Your task to perform on an android device: Empty the shopping cart on walmart.com. Search for logitech g933 on walmart.com, select the first entry, add it to the cart, then select checkout. Image 0: 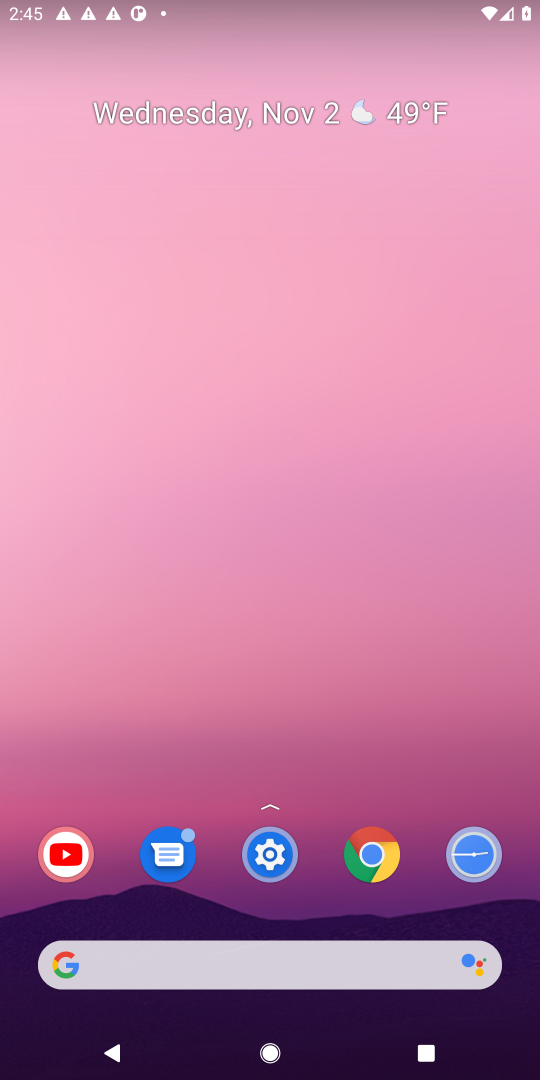
Step 0: click (223, 966)
Your task to perform on an android device: Empty the shopping cart on walmart.com. Search for logitech g933 on walmart.com, select the first entry, add it to the cart, then select checkout. Image 1: 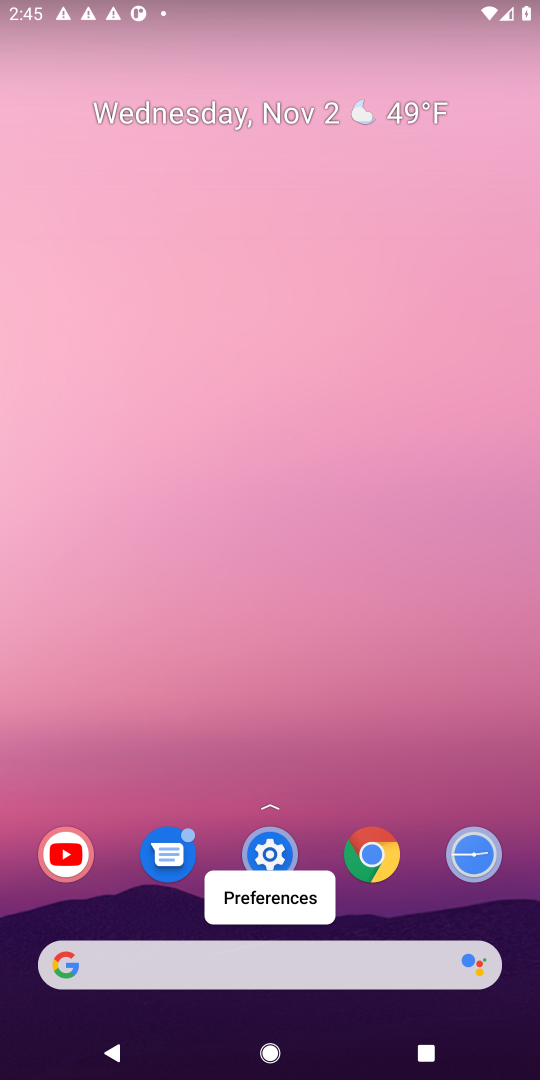
Step 1: click (222, 964)
Your task to perform on an android device: Empty the shopping cart on walmart.com. Search for logitech g933 on walmart.com, select the first entry, add it to the cart, then select checkout. Image 2: 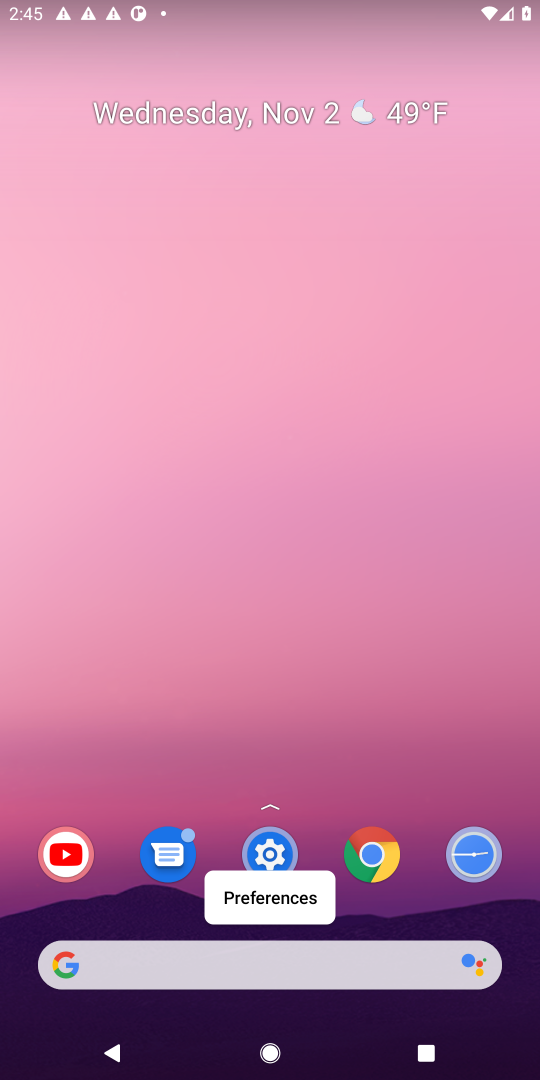
Step 2: click (222, 964)
Your task to perform on an android device: Empty the shopping cart on walmart.com. Search for logitech g933 on walmart.com, select the first entry, add it to the cart, then select checkout. Image 3: 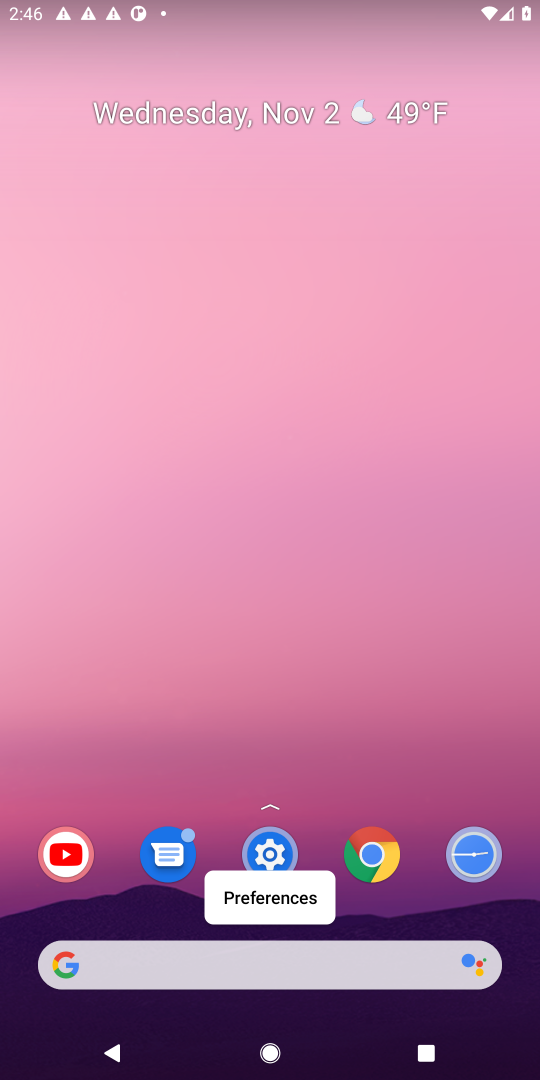
Step 3: click (222, 964)
Your task to perform on an android device: Empty the shopping cart on walmart.com. Search for logitech g933 on walmart.com, select the first entry, add it to the cart, then select checkout. Image 4: 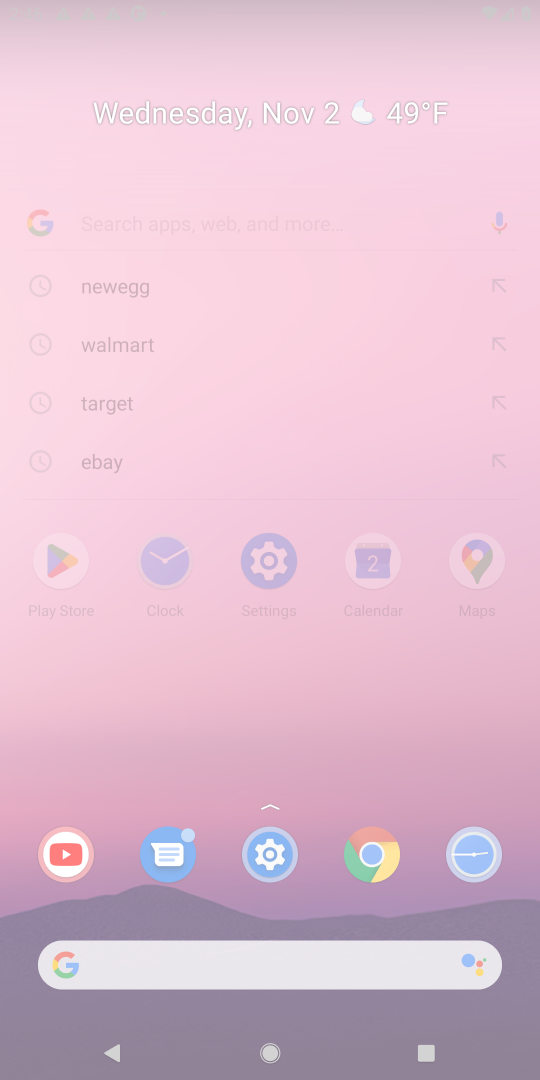
Step 4: click (222, 964)
Your task to perform on an android device: Empty the shopping cart on walmart.com. Search for logitech g933 on walmart.com, select the first entry, add it to the cart, then select checkout. Image 5: 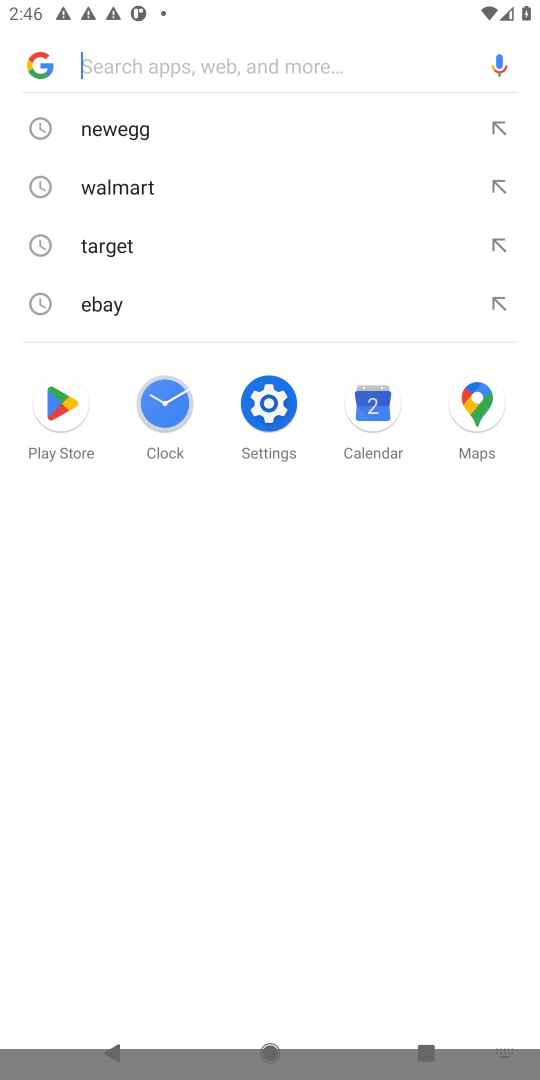
Step 5: click (222, 964)
Your task to perform on an android device: Empty the shopping cart on walmart.com. Search for logitech g933 on walmart.com, select the first entry, add it to the cart, then select checkout. Image 6: 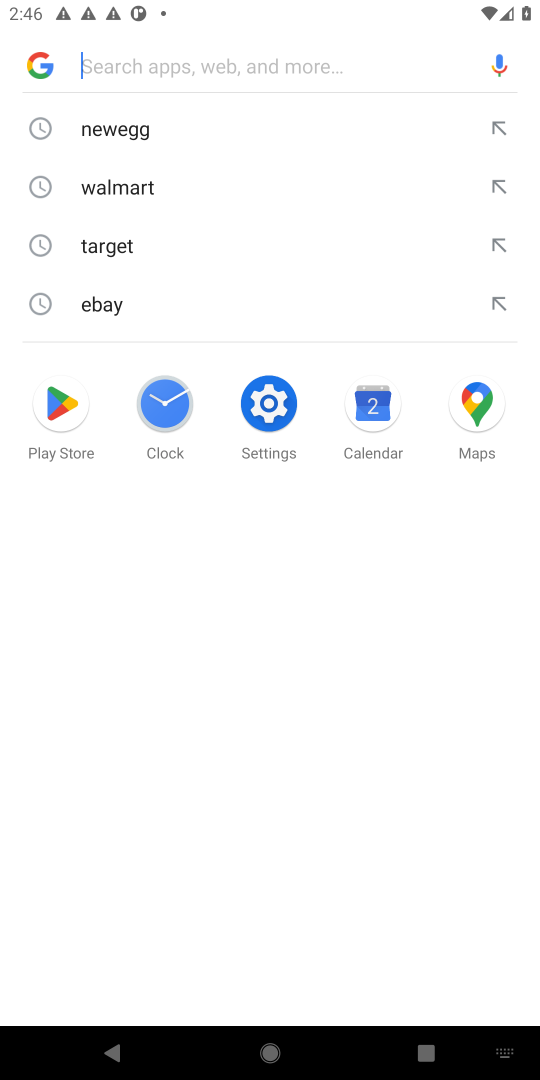
Step 6: click (130, 194)
Your task to perform on an android device: Empty the shopping cart on walmart.com. Search for logitech g933 on walmart.com, select the first entry, add it to the cart, then select checkout. Image 7: 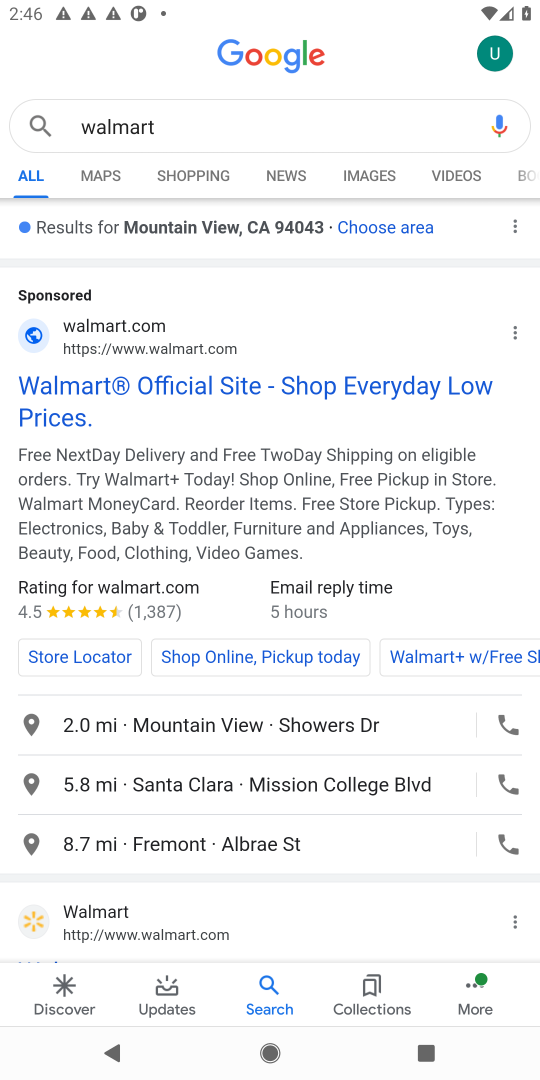
Step 7: press enter
Your task to perform on an android device: Empty the shopping cart on walmart.com. Search for logitech g933 on walmart.com, select the first entry, add it to the cart, then select checkout. Image 8: 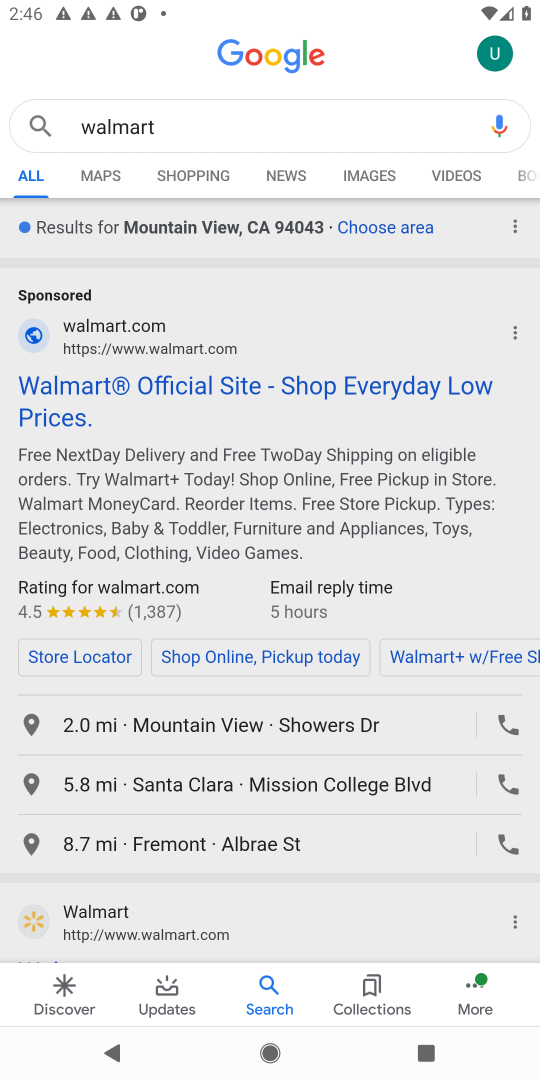
Step 8: click (221, 392)
Your task to perform on an android device: Empty the shopping cart on walmart.com. Search for logitech g933 on walmart.com, select the first entry, add it to the cart, then select checkout. Image 9: 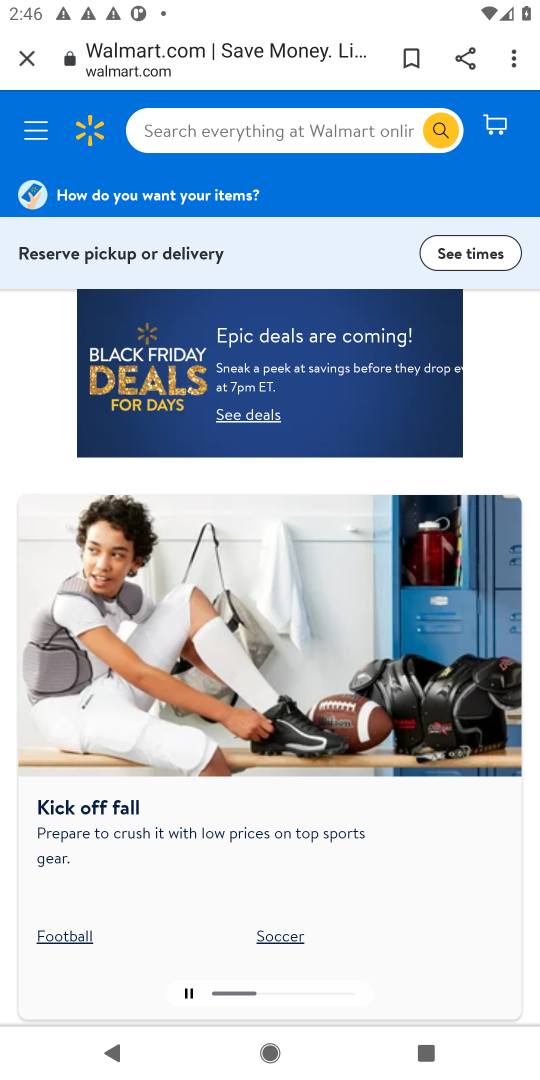
Step 9: click (221, 392)
Your task to perform on an android device: Empty the shopping cart on walmart.com. Search for logitech g933 on walmart.com, select the first entry, add it to the cart, then select checkout. Image 10: 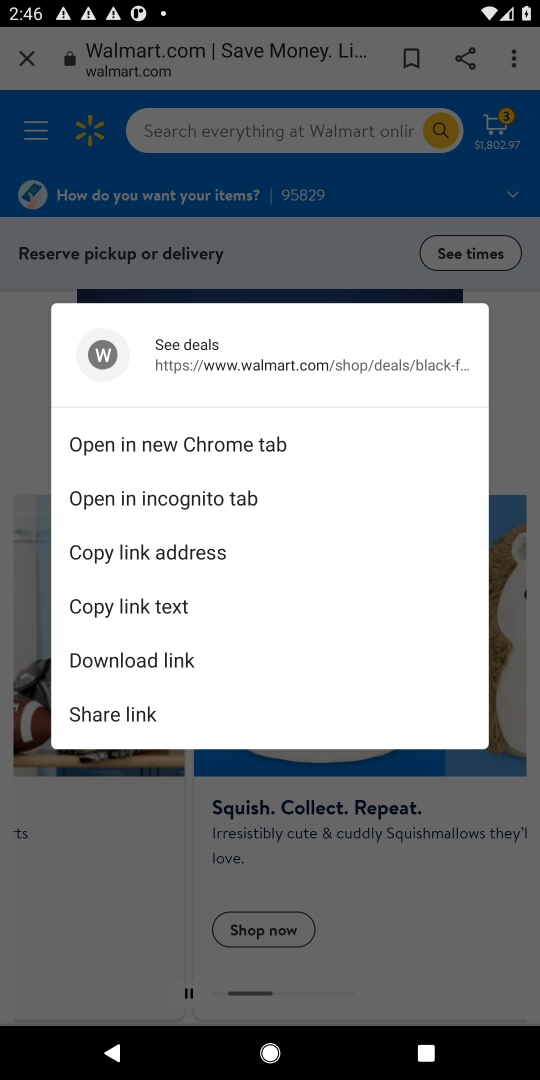
Step 10: click (199, 141)
Your task to perform on an android device: Empty the shopping cart on walmart.com. Search for logitech g933 on walmart.com, select the first entry, add it to the cart, then select checkout. Image 11: 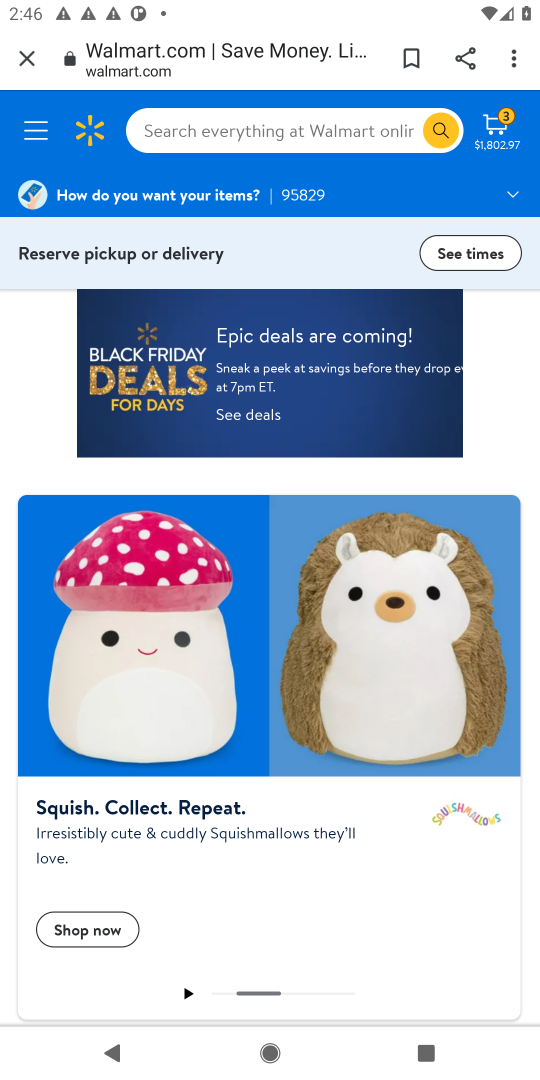
Step 11: click (507, 124)
Your task to perform on an android device: Empty the shopping cart on walmart.com. Search for logitech g933 on walmart.com, select the first entry, add it to the cart, then select checkout. Image 12: 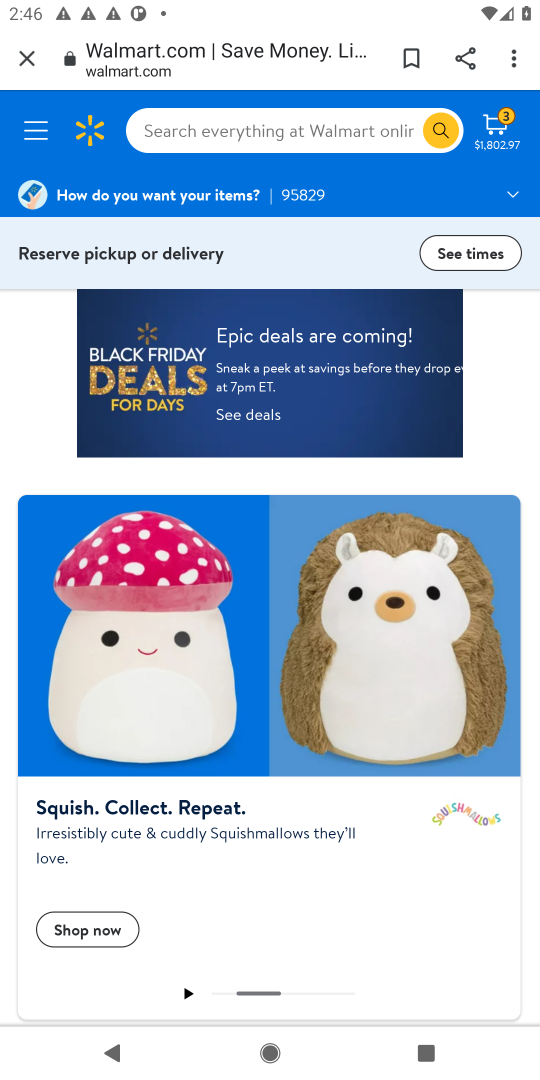
Step 12: click (498, 134)
Your task to perform on an android device: Empty the shopping cart on walmart.com. Search for logitech g933 on walmart.com, select the first entry, add it to the cart, then select checkout. Image 13: 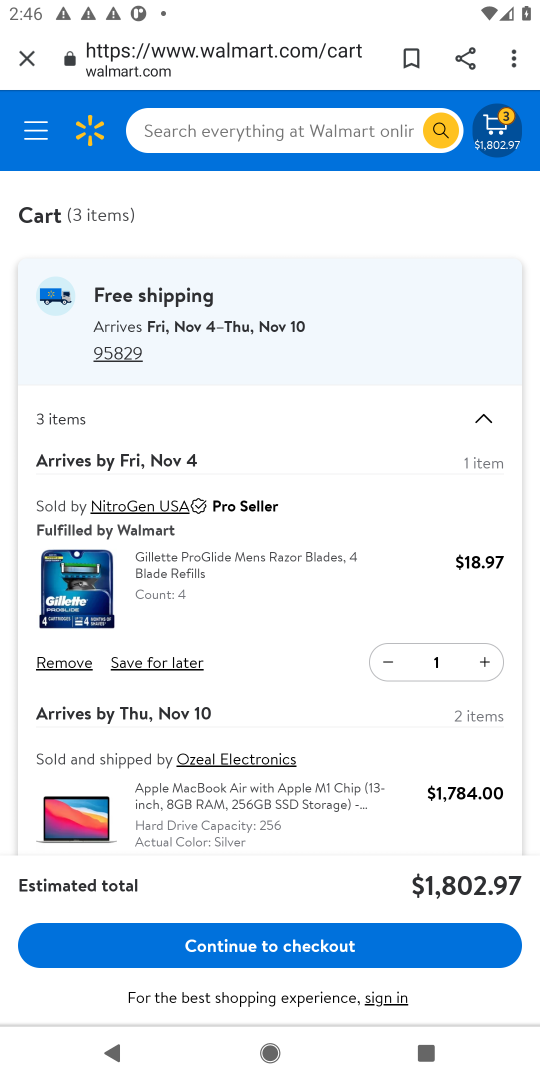
Step 13: click (497, 135)
Your task to perform on an android device: Empty the shopping cart on walmart.com. Search for logitech g933 on walmart.com, select the first entry, add it to the cart, then select checkout. Image 14: 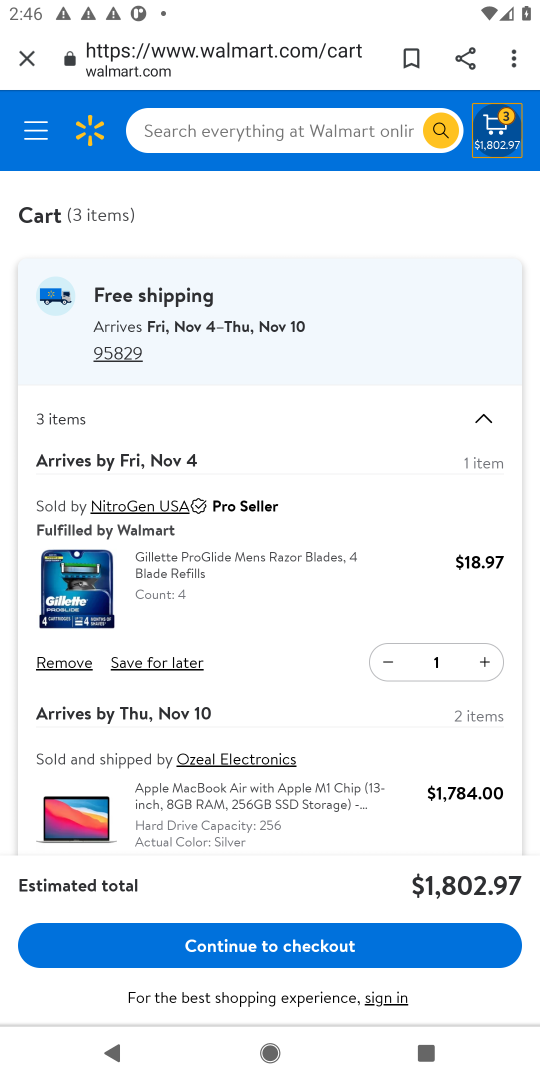
Step 14: click (381, 662)
Your task to perform on an android device: Empty the shopping cart on walmart.com. Search for logitech g933 on walmart.com, select the first entry, add it to the cart, then select checkout. Image 15: 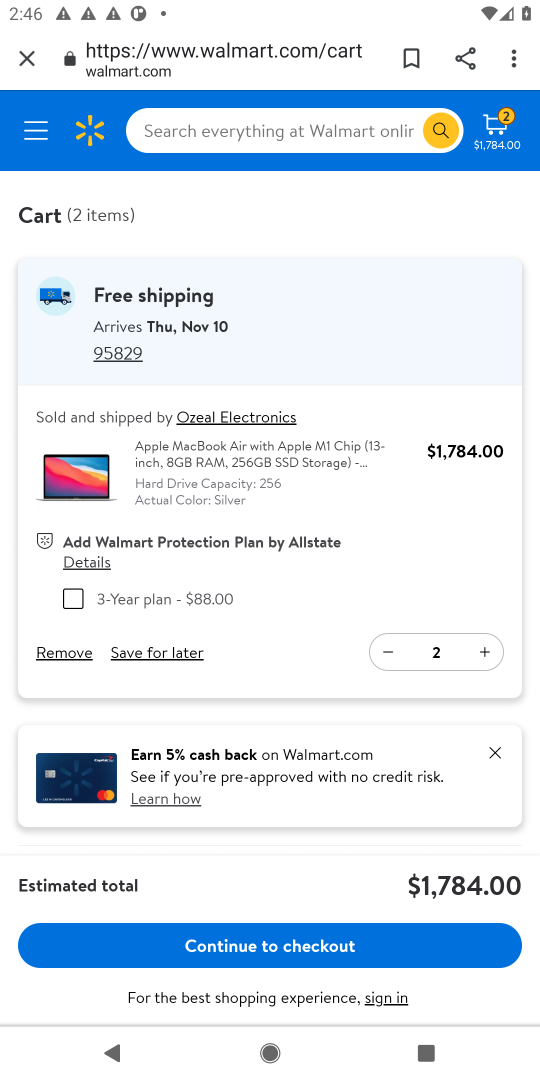
Step 15: click (386, 649)
Your task to perform on an android device: Empty the shopping cart on walmart.com. Search for logitech g933 on walmart.com, select the first entry, add it to the cart, then select checkout. Image 16: 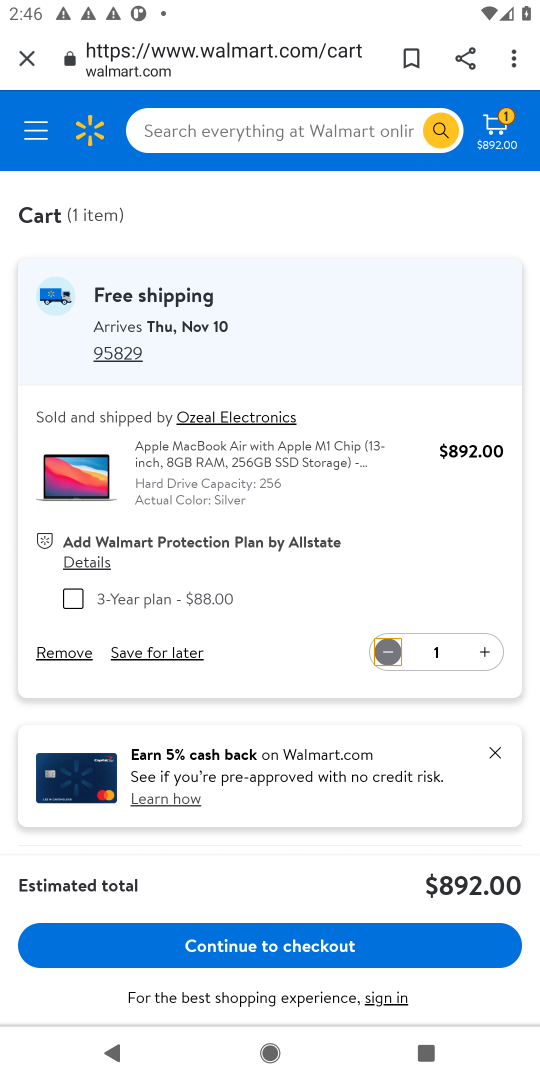
Step 16: click (387, 651)
Your task to perform on an android device: Empty the shopping cart on walmart.com. Search for logitech g933 on walmart.com, select the first entry, add it to the cart, then select checkout. Image 17: 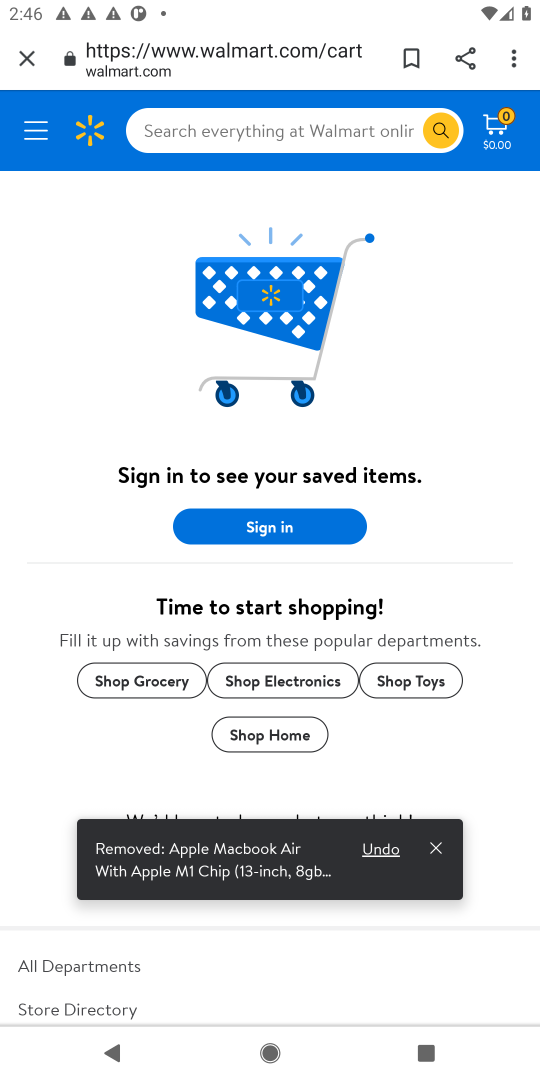
Step 17: click (247, 128)
Your task to perform on an android device: Empty the shopping cart on walmart.com. Search for logitech g933 on walmart.com, select the first entry, add it to the cart, then select checkout. Image 18: 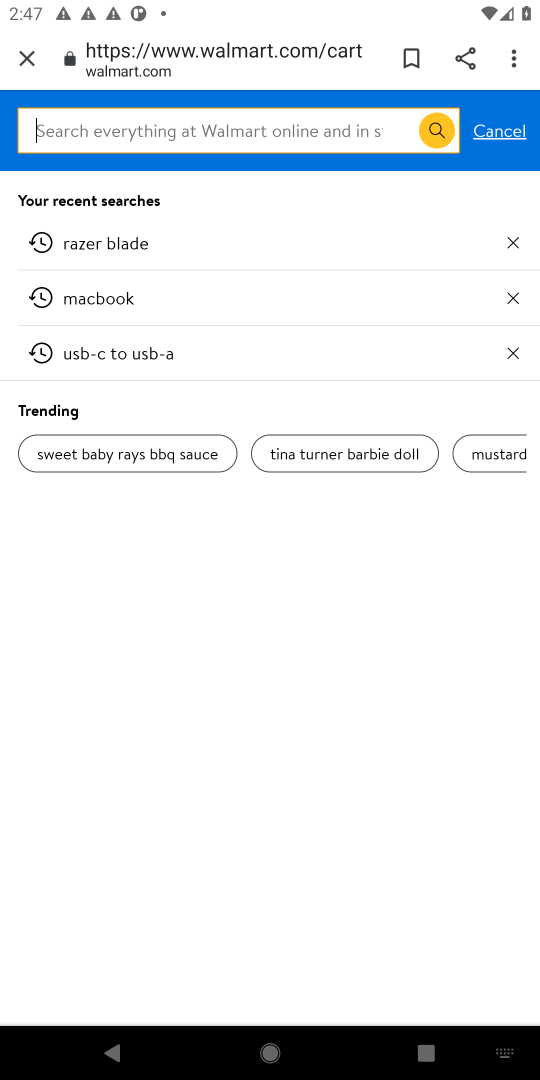
Step 18: type "logitech g933"
Your task to perform on an android device: Empty the shopping cart on walmart.com. Search for logitech g933 on walmart.com, select the first entry, add it to the cart, then select checkout. Image 19: 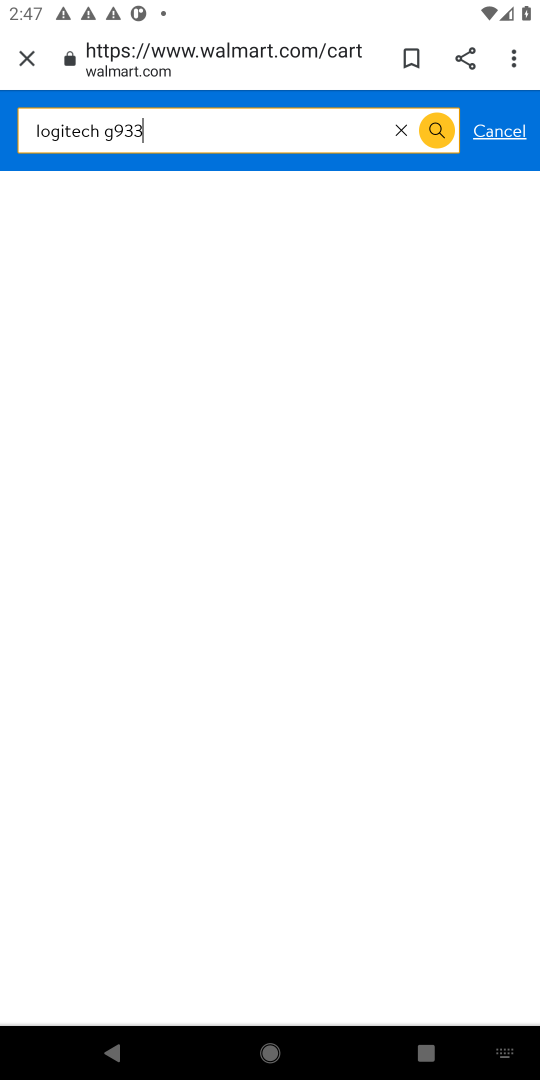
Step 19: type ""
Your task to perform on an android device: Empty the shopping cart on walmart.com. Search for logitech g933 on walmart.com, select the first entry, add it to the cart, then select checkout. Image 20: 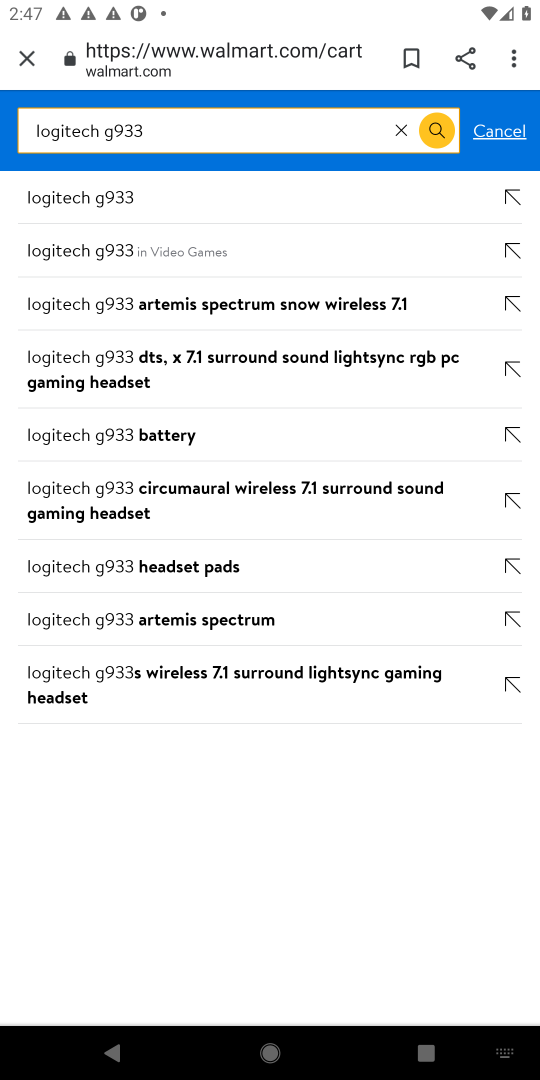
Step 20: press enter
Your task to perform on an android device: Empty the shopping cart on walmart.com. Search for logitech g933 on walmart.com, select the first entry, add it to the cart, then select checkout. Image 21: 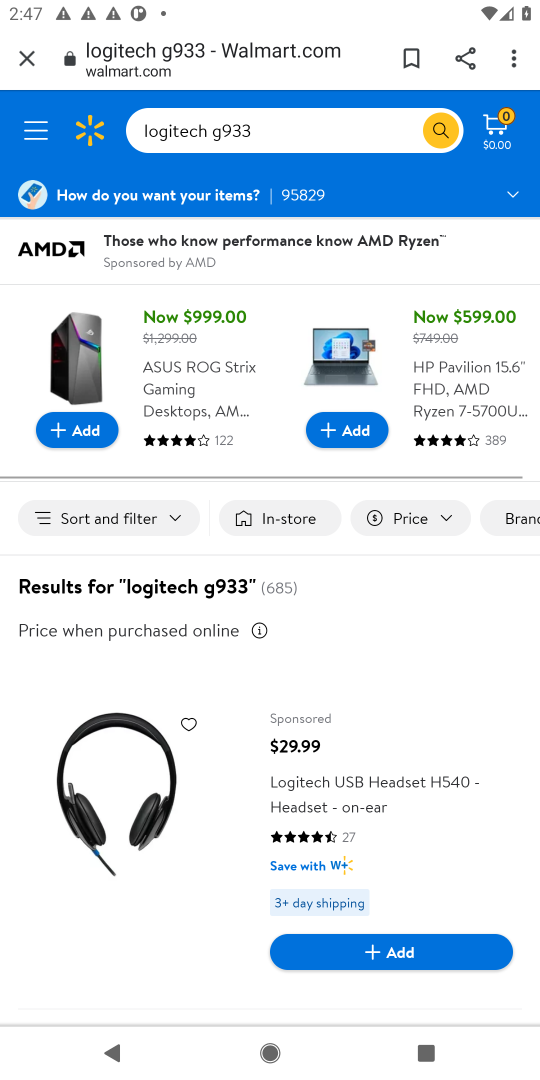
Step 21: click (435, 950)
Your task to perform on an android device: Empty the shopping cart on walmart.com. Search for logitech g933 on walmart.com, select the first entry, add it to the cart, then select checkout. Image 22: 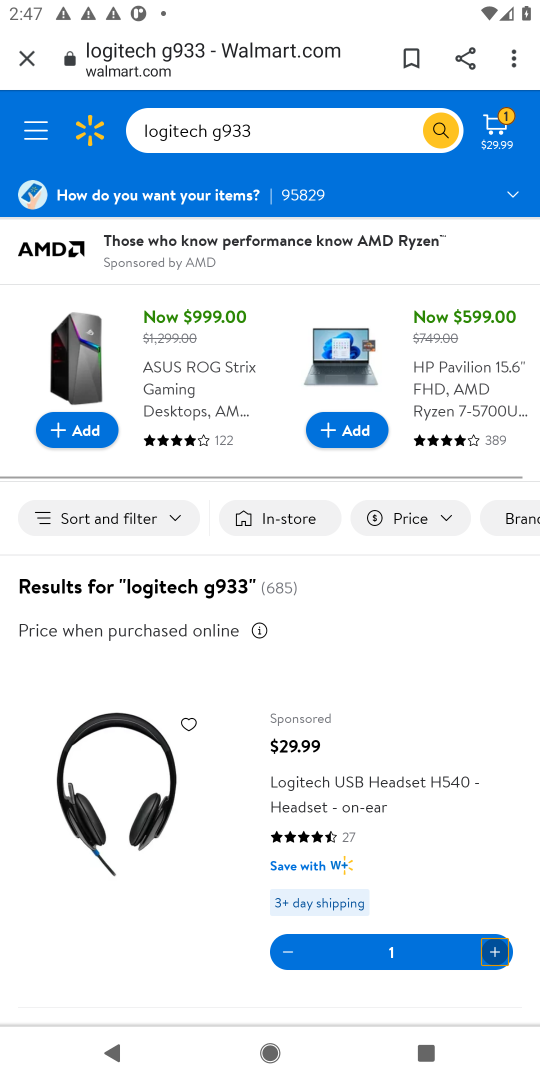
Step 22: click (489, 141)
Your task to perform on an android device: Empty the shopping cart on walmart.com. Search for logitech g933 on walmart.com, select the first entry, add it to the cart, then select checkout. Image 23: 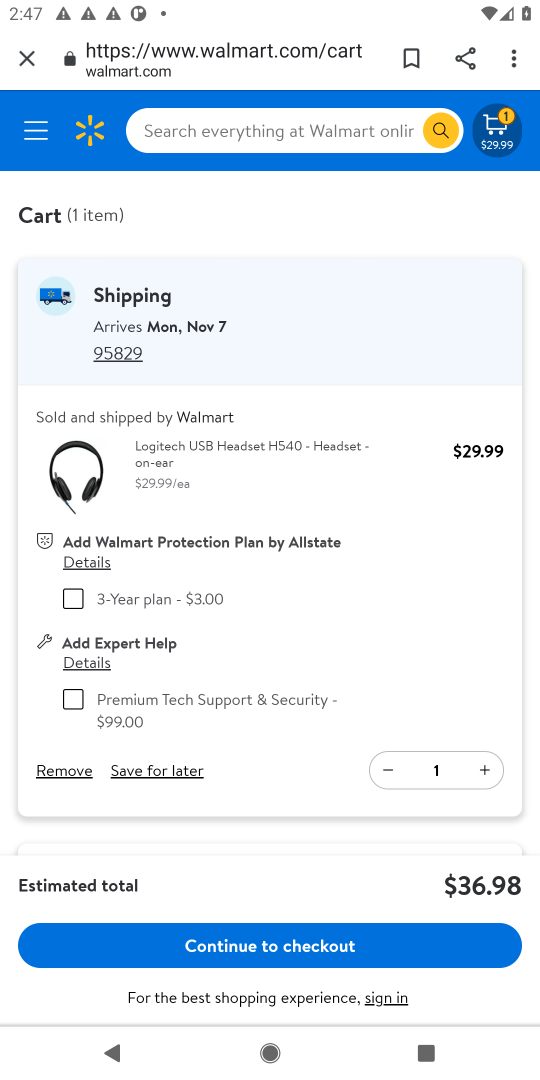
Step 23: click (320, 943)
Your task to perform on an android device: Empty the shopping cart on walmart.com. Search for logitech g933 on walmart.com, select the first entry, add it to the cart, then select checkout. Image 24: 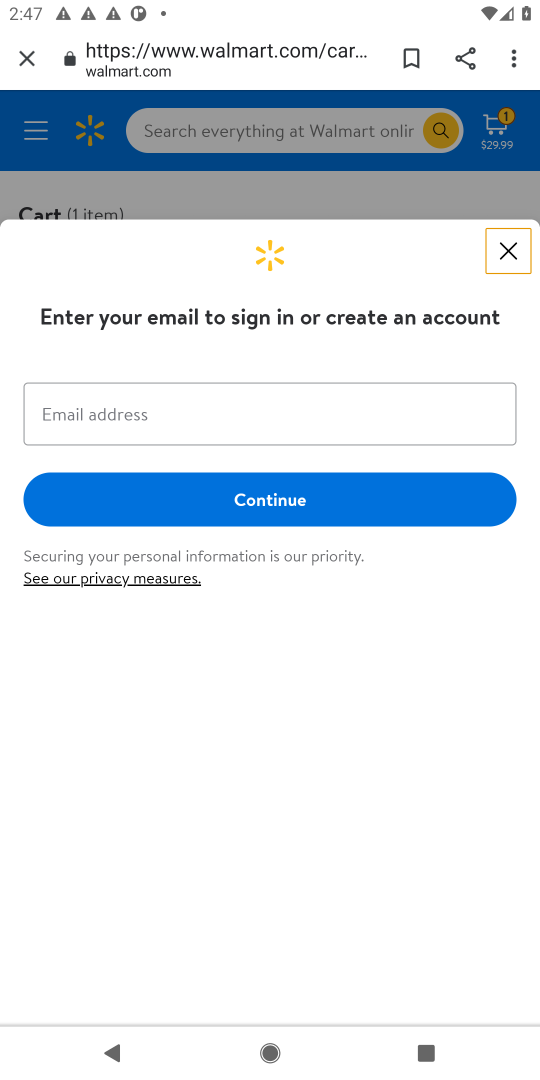
Step 24: task complete